Your task to perform on an android device: check google app version Image 0: 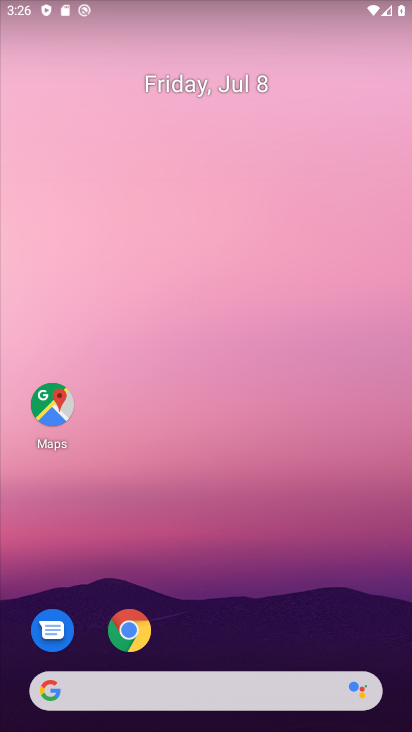
Step 0: drag from (272, 641) to (243, 1)
Your task to perform on an android device: check google app version Image 1: 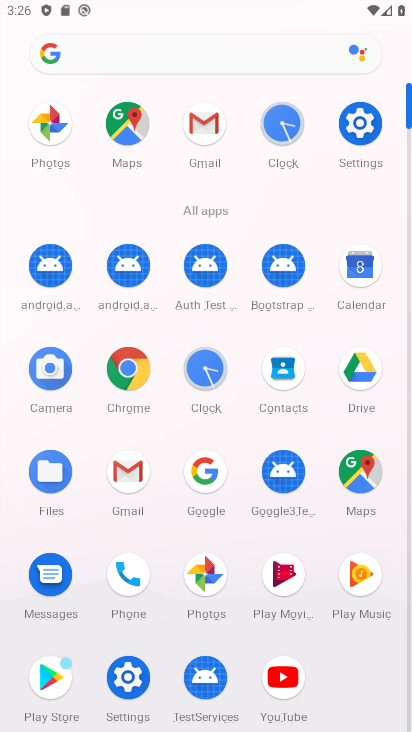
Step 1: click (201, 466)
Your task to perform on an android device: check google app version Image 2: 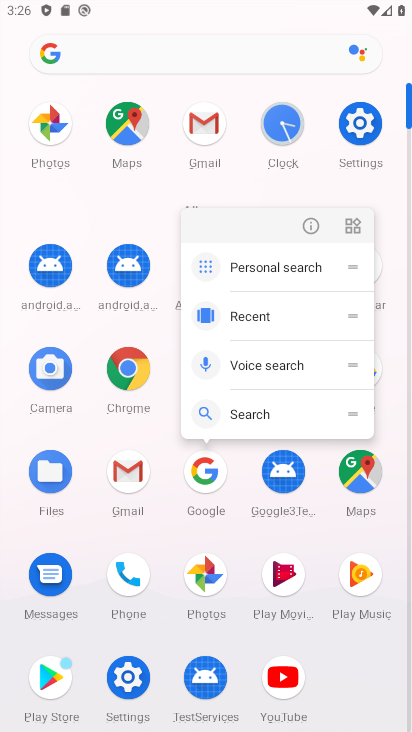
Step 2: click (308, 228)
Your task to perform on an android device: check google app version Image 3: 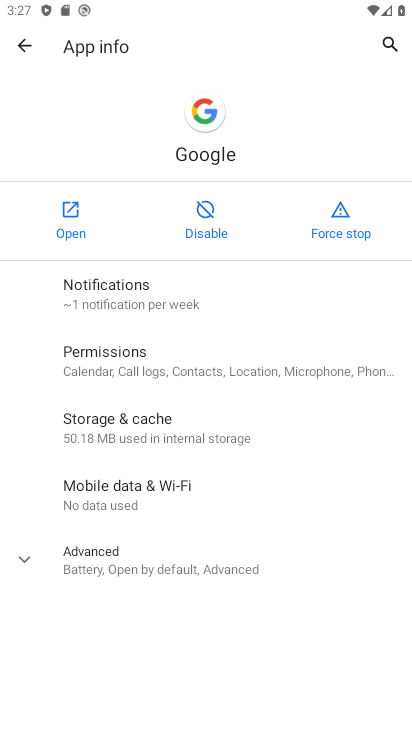
Step 3: click (93, 563)
Your task to perform on an android device: check google app version Image 4: 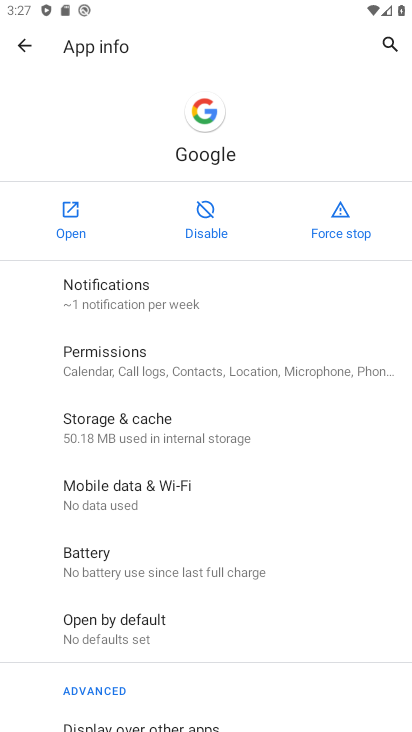
Step 4: drag from (116, 697) to (112, 149)
Your task to perform on an android device: check google app version Image 5: 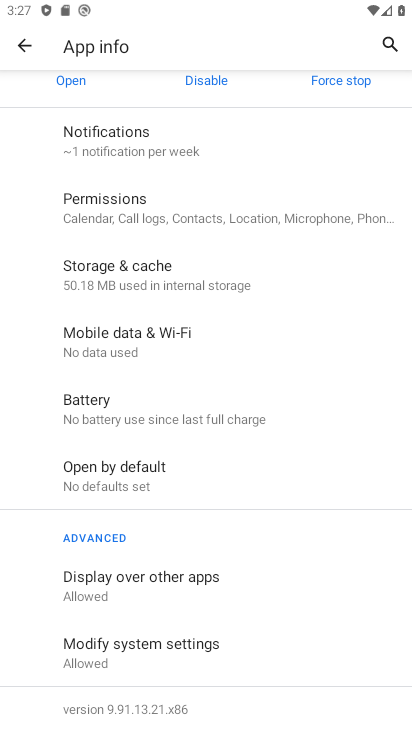
Step 5: drag from (159, 618) to (152, 175)
Your task to perform on an android device: check google app version Image 6: 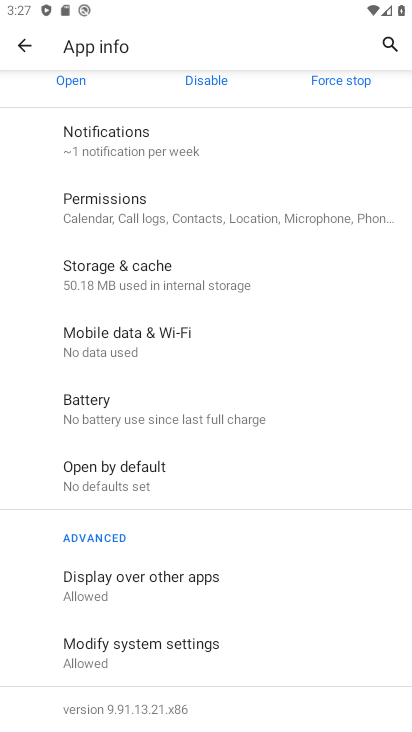
Step 6: click (179, 719)
Your task to perform on an android device: check google app version Image 7: 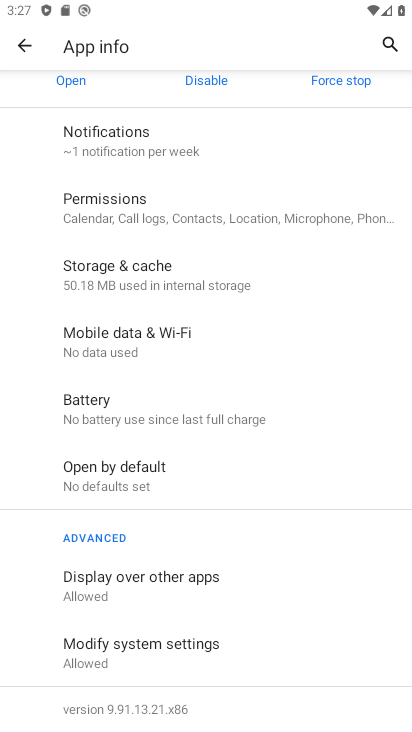
Step 7: click (187, 713)
Your task to perform on an android device: check google app version Image 8: 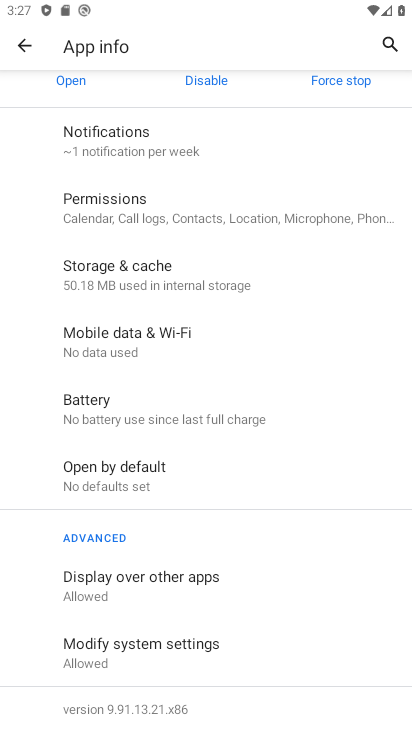
Step 8: task complete